Your task to perform on an android device: What's on my calendar tomorrow? Image 0: 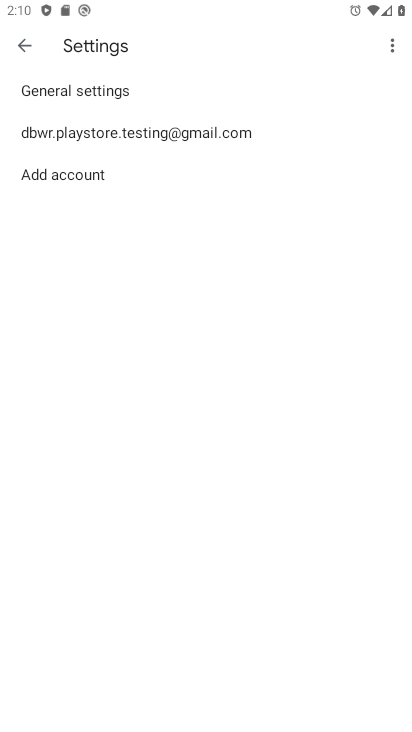
Step 0: press home button
Your task to perform on an android device: What's on my calendar tomorrow? Image 1: 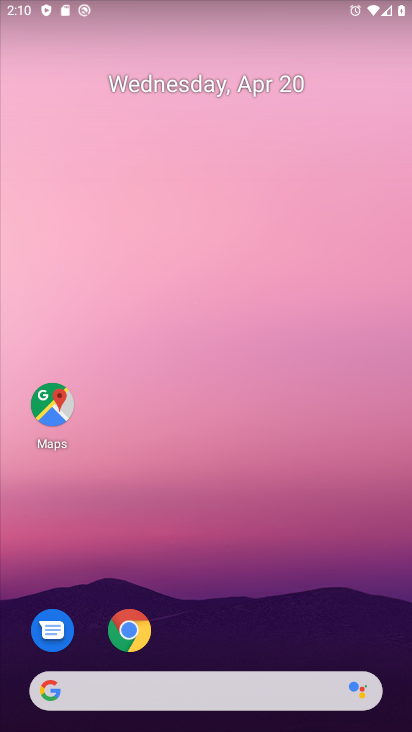
Step 1: drag from (194, 638) to (133, 268)
Your task to perform on an android device: What's on my calendar tomorrow? Image 2: 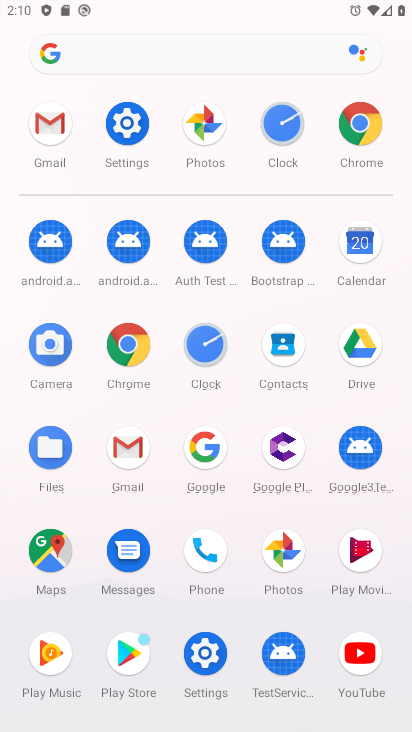
Step 2: click (352, 246)
Your task to perform on an android device: What's on my calendar tomorrow? Image 3: 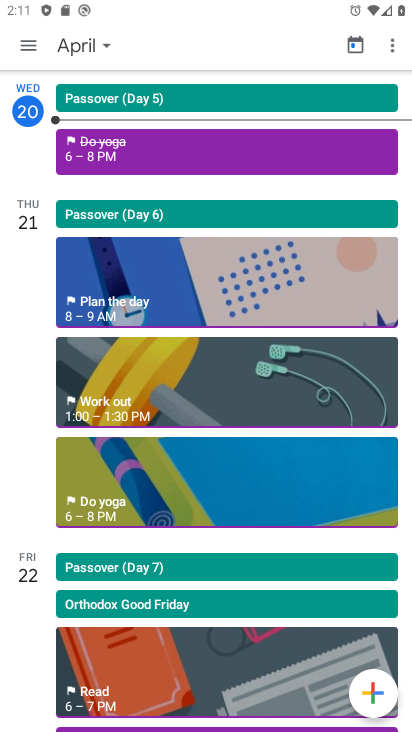
Step 3: task complete